Your task to perform on an android device: open wifi settings Image 0: 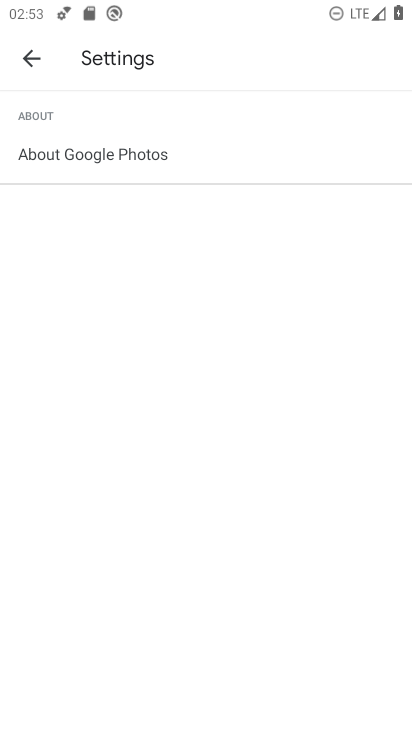
Step 0: press home button
Your task to perform on an android device: open wifi settings Image 1: 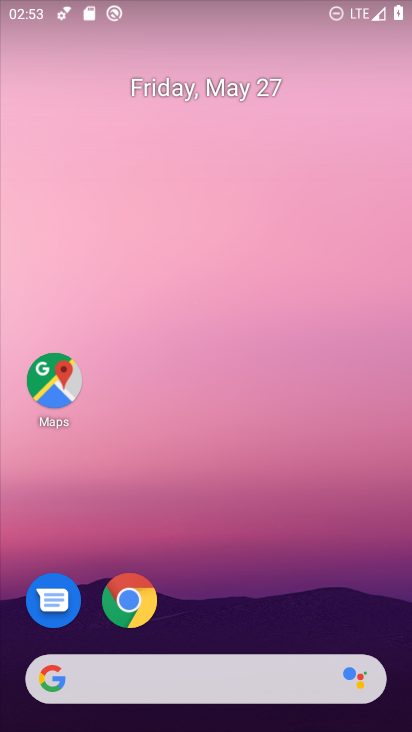
Step 1: drag from (212, 727) to (209, 128)
Your task to perform on an android device: open wifi settings Image 2: 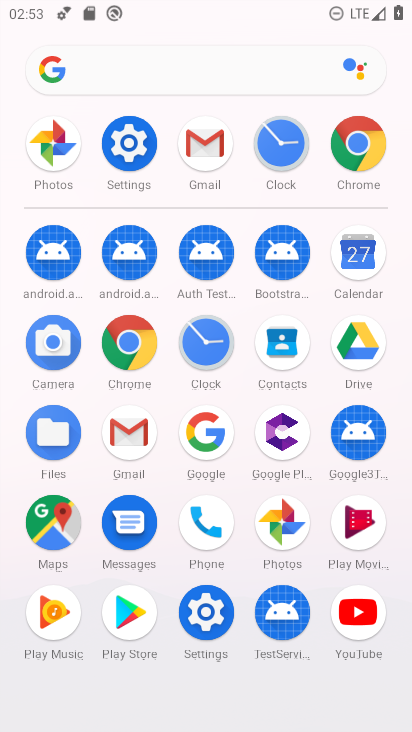
Step 2: click (133, 148)
Your task to perform on an android device: open wifi settings Image 3: 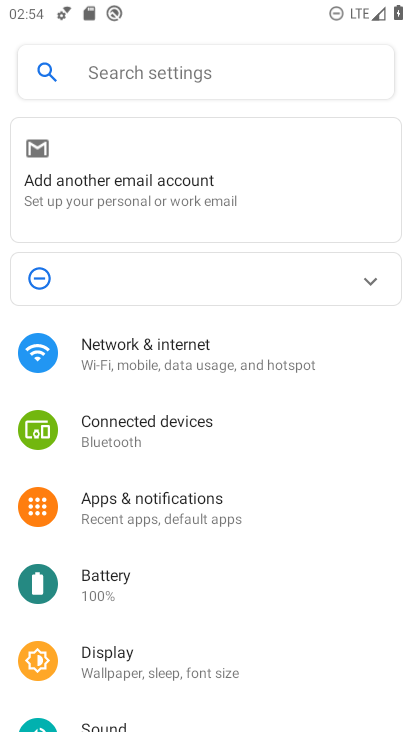
Step 3: click (118, 361)
Your task to perform on an android device: open wifi settings Image 4: 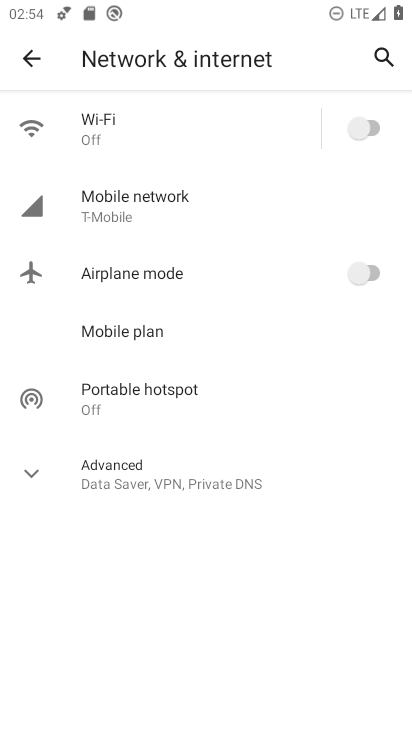
Step 4: click (91, 124)
Your task to perform on an android device: open wifi settings Image 5: 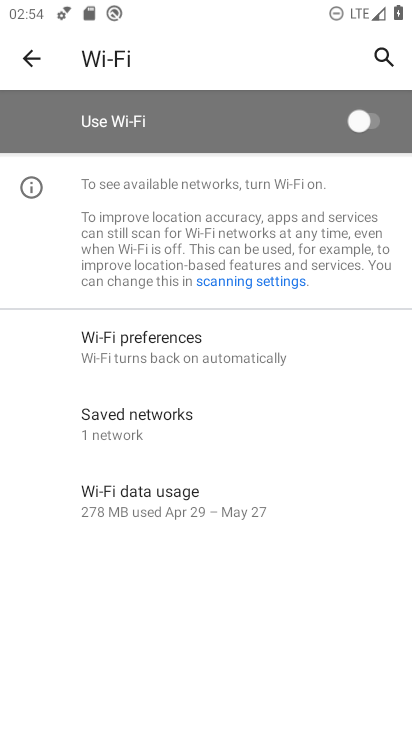
Step 5: task complete